Your task to perform on an android device: turn on javascript in the chrome app Image 0: 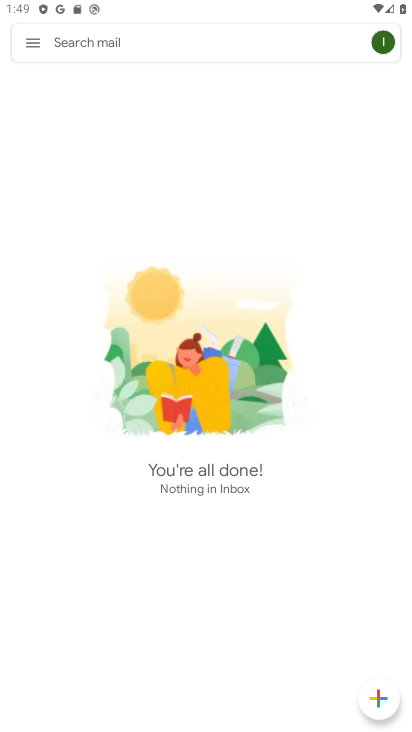
Step 0: press home button
Your task to perform on an android device: turn on javascript in the chrome app Image 1: 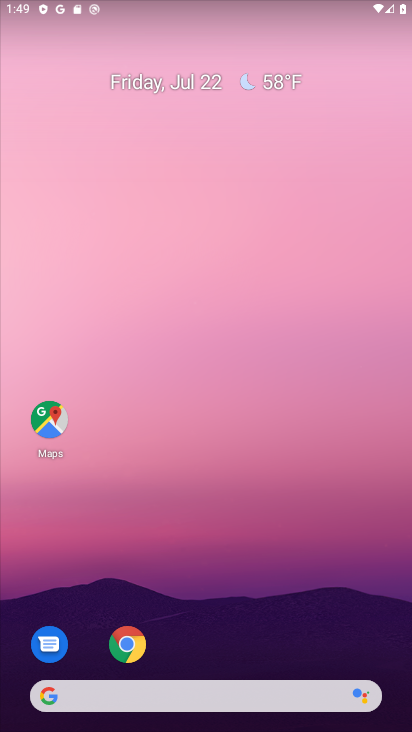
Step 1: click (121, 637)
Your task to perform on an android device: turn on javascript in the chrome app Image 2: 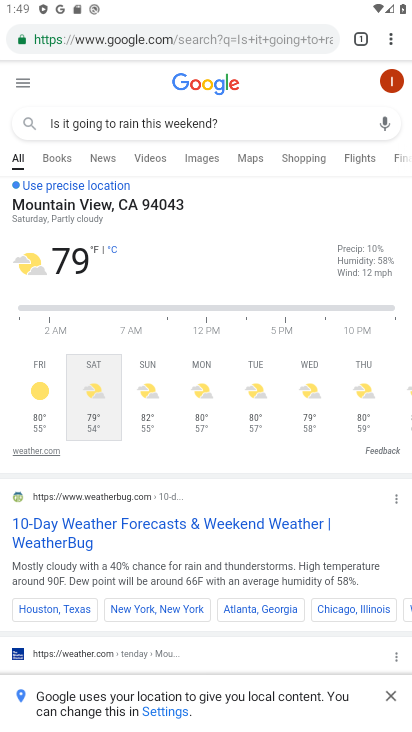
Step 2: click (392, 42)
Your task to perform on an android device: turn on javascript in the chrome app Image 3: 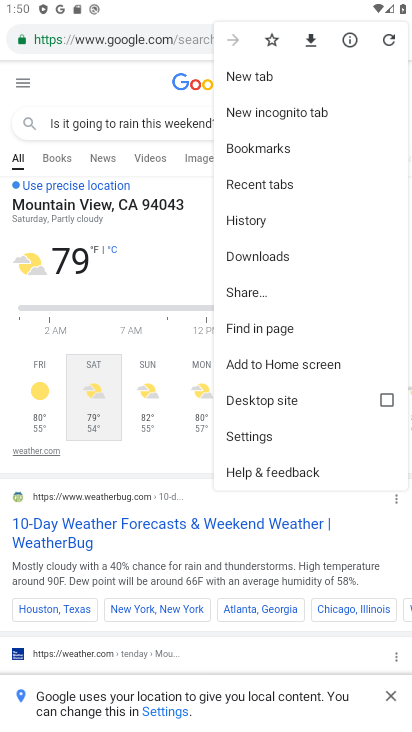
Step 3: click (310, 439)
Your task to perform on an android device: turn on javascript in the chrome app Image 4: 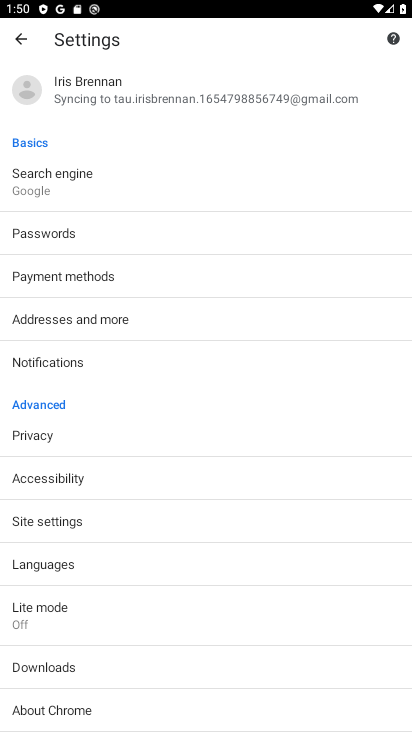
Step 4: drag from (271, 568) to (243, 459)
Your task to perform on an android device: turn on javascript in the chrome app Image 5: 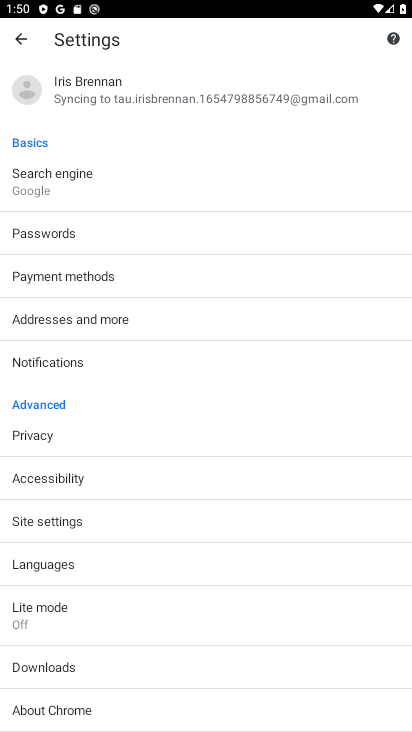
Step 5: click (220, 518)
Your task to perform on an android device: turn on javascript in the chrome app Image 6: 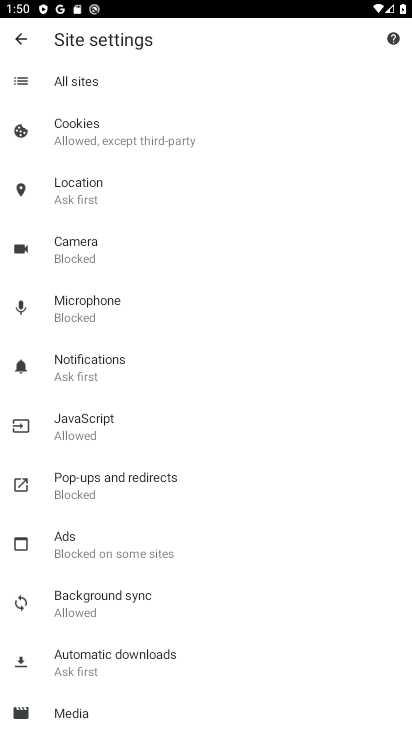
Step 6: click (158, 429)
Your task to perform on an android device: turn on javascript in the chrome app Image 7: 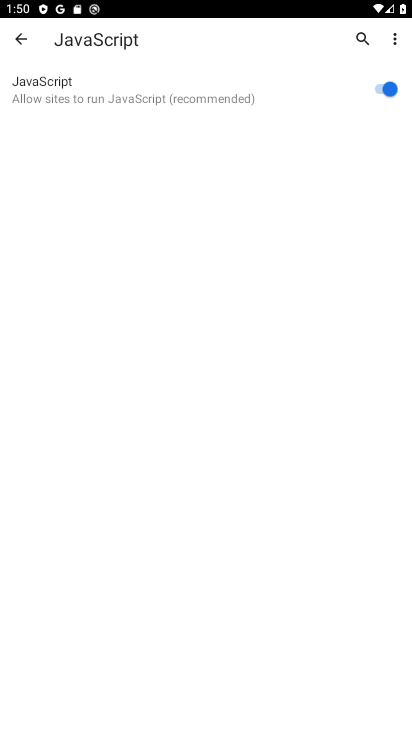
Step 7: task complete